Your task to perform on an android device: check battery use Image 0: 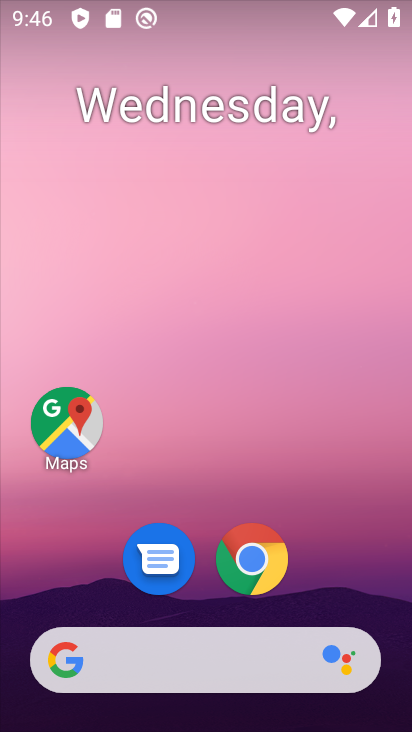
Step 0: drag from (354, 343) to (344, 136)
Your task to perform on an android device: check battery use Image 1: 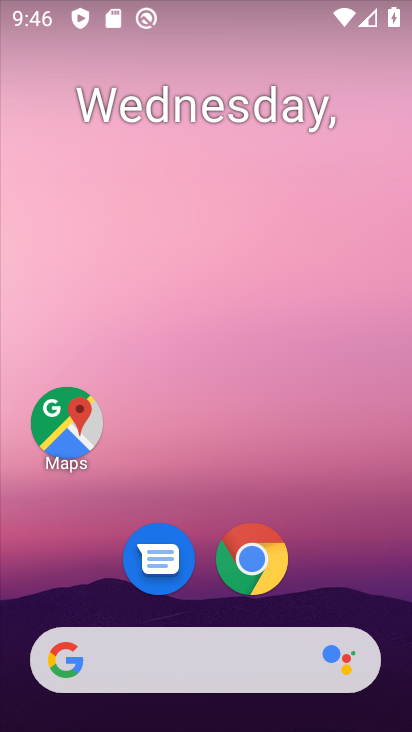
Step 1: drag from (327, 312) to (307, 9)
Your task to perform on an android device: check battery use Image 2: 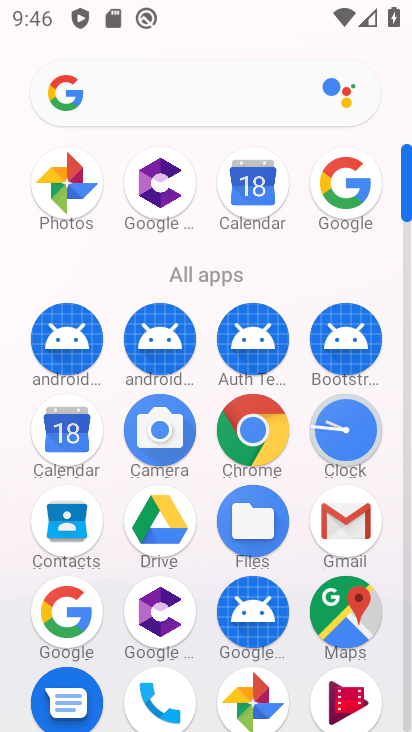
Step 2: drag from (381, 557) to (401, 79)
Your task to perform on an android device: check battery use Image 3: 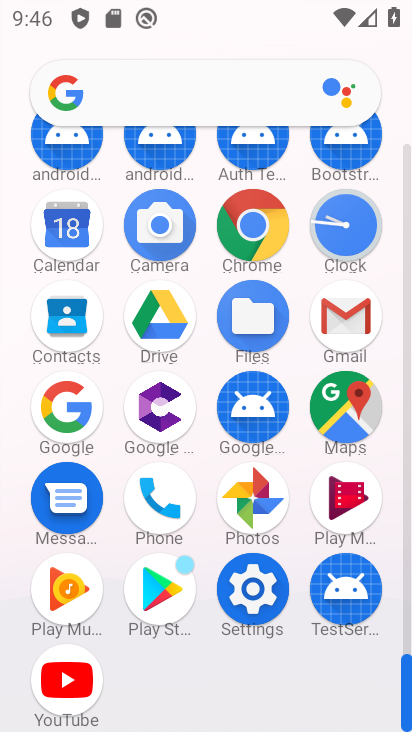
Step 3: click (263, 601)
Your task to perform on an android device: check battery use Image 4: 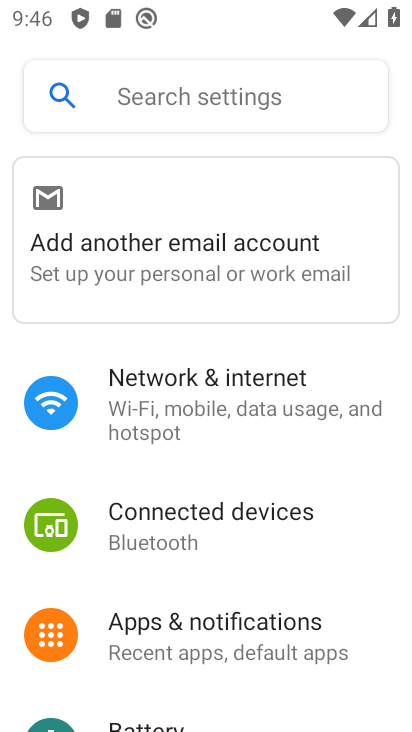
Step 4: drag from (262, 575) to (271, 262)
Your task to perform on an android device: check battery use Image 5: 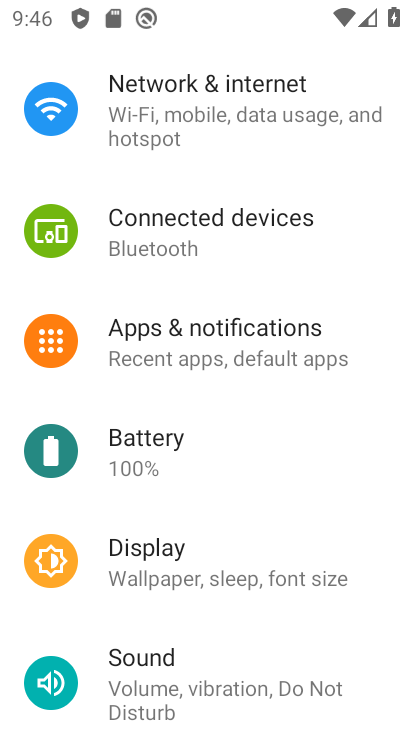
Step 5: click (134, 453)
Your task to perform on an android device: check battery use Image 6: 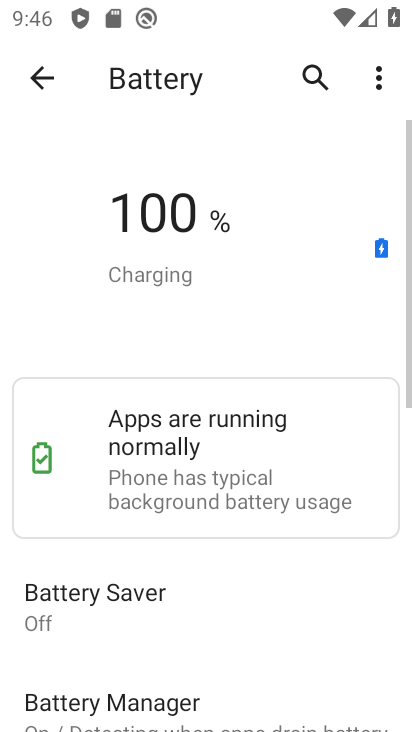
Step 6: task complete